Your task to perform on an android device: Go to eBay Image 0: 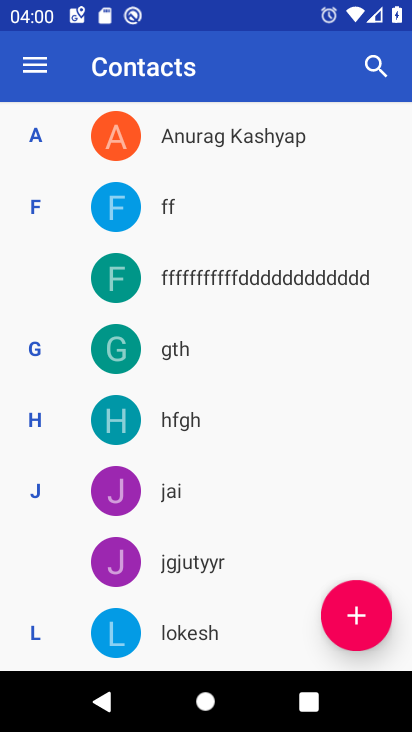
Step 0: press home button
Your task to perform on an android device: Go to eBay Image 1: 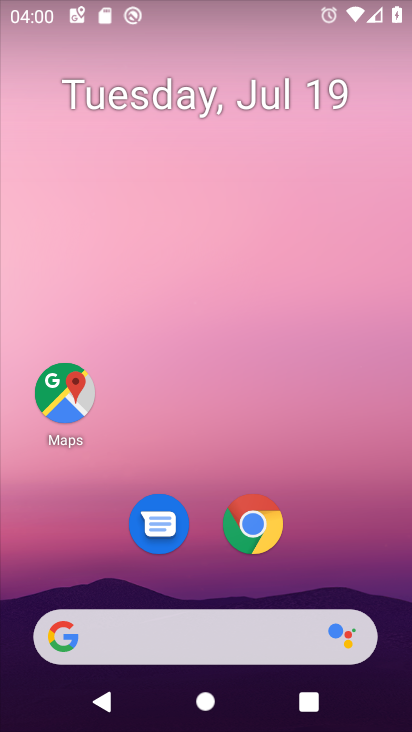
Step 1: click (252, 637)
Your task to perform on an android device: Go to eBay Image 2: 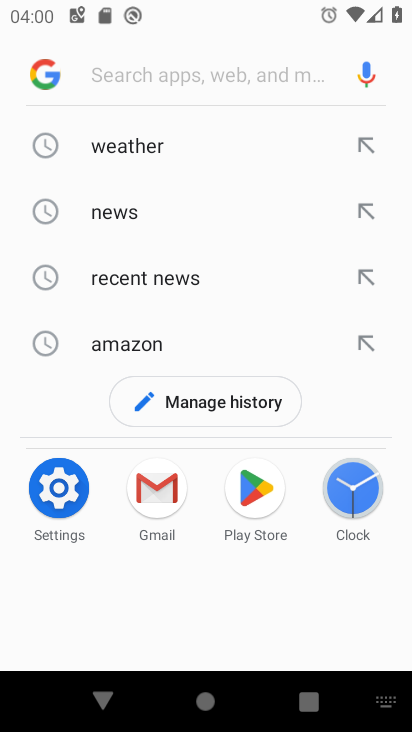
Step 2: type "ebay"
Your task to perform on an android device: Go to eBay Image 3: 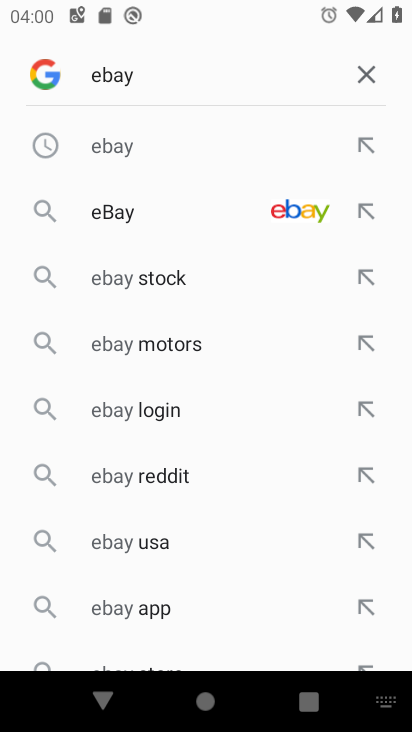
Step 3: click (313, 210)
Your task to perform on an android device: Go to eBay Image 4: 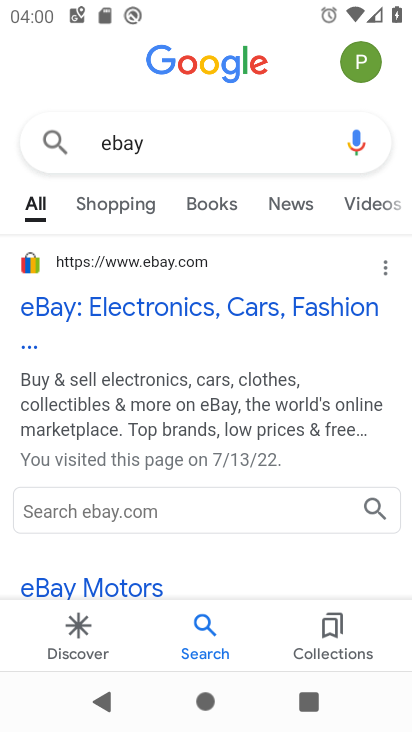
Step 4: click (71, 306)
Your task to perform on an android device: Go to eBay Image 5: 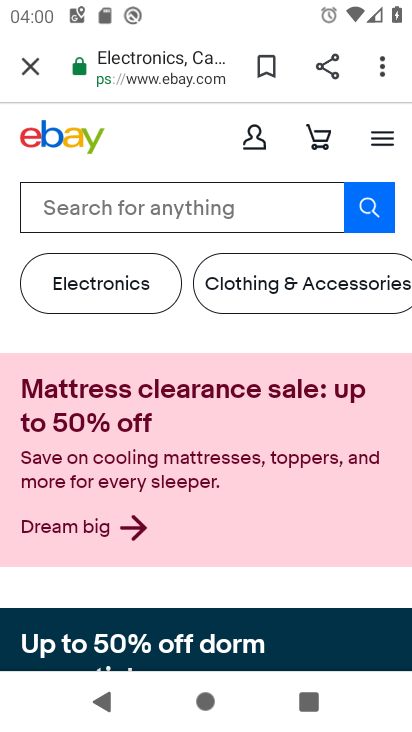
Step 5: task complete